Your task to perform on an android device: Search for a 100 ft extension cord Image 0: 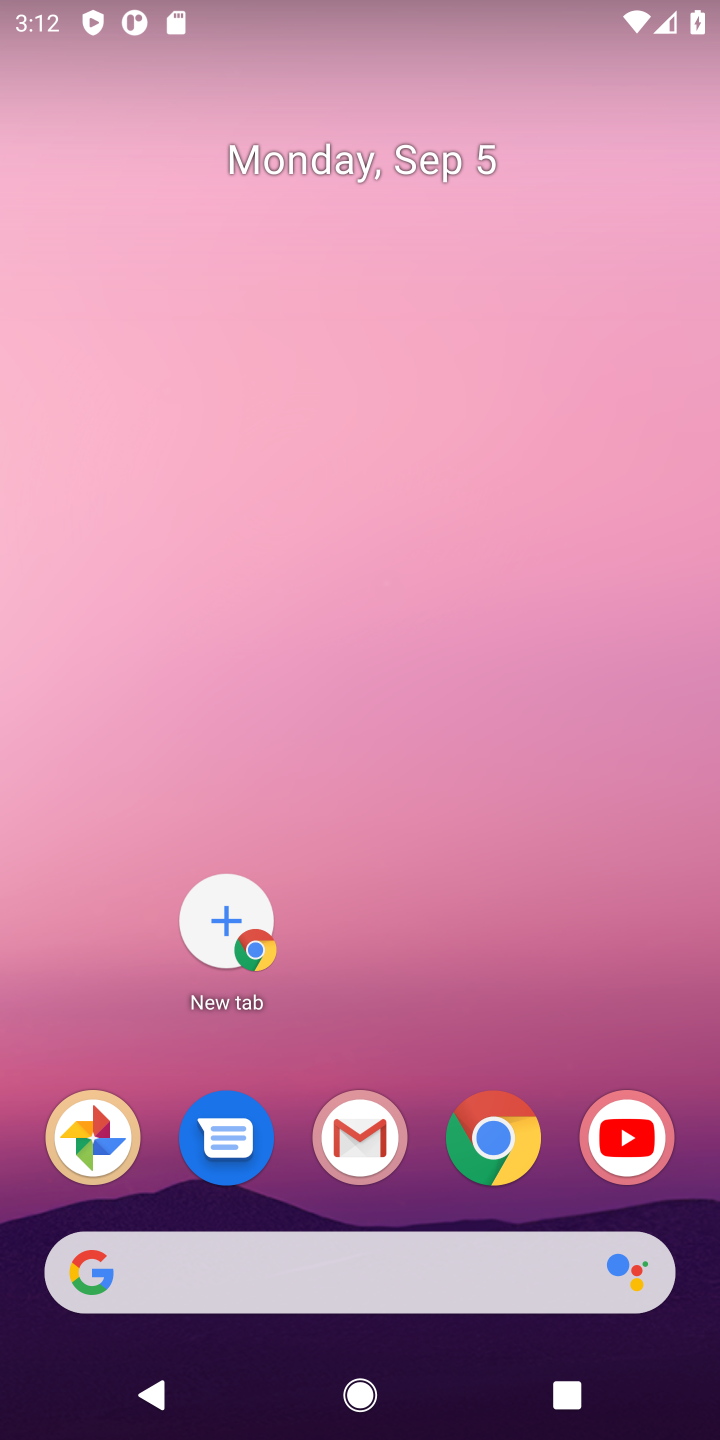
Step 0: click (470, 1124)
Your task to perform on an android device: Search for a 100 ft extension cord Image 1: 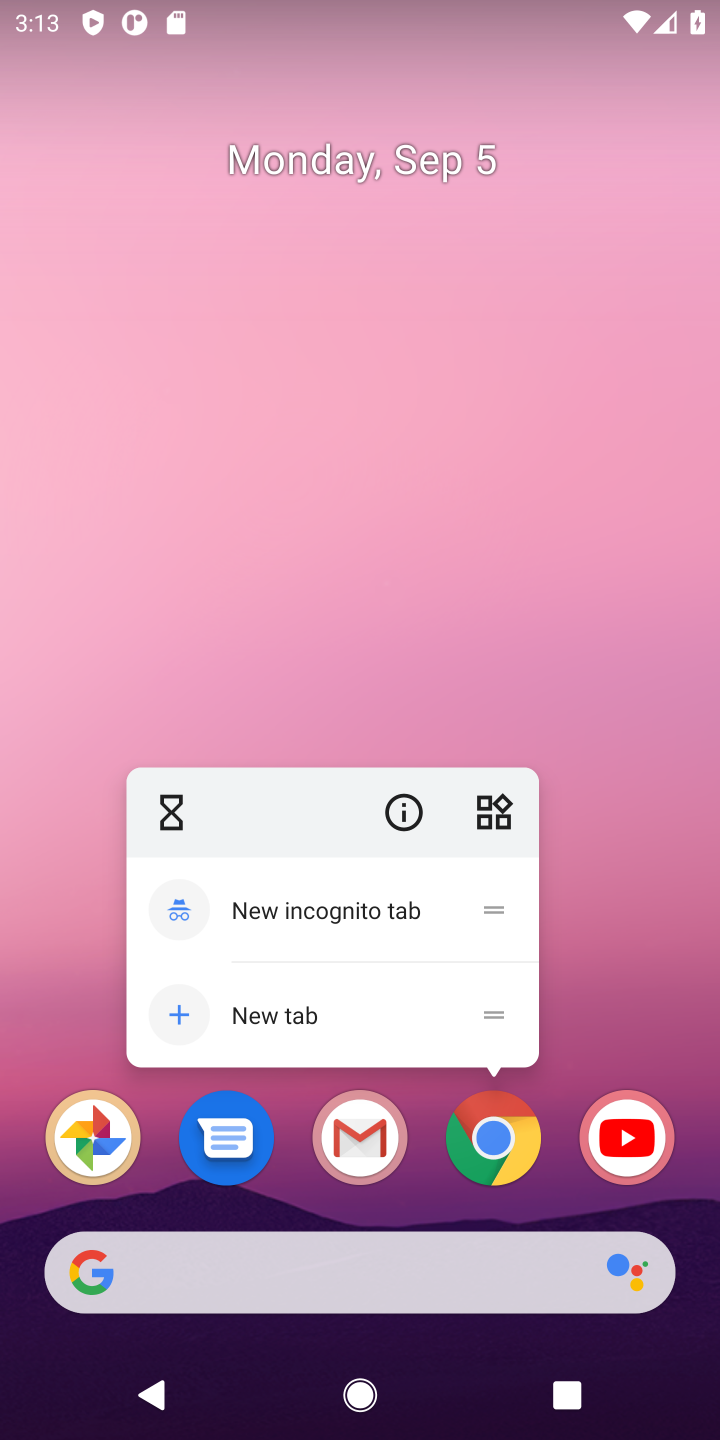
Step 1: click (502, 1156)
Your task to perform on an android device: Search for a 100 ft extension cord Image 2: 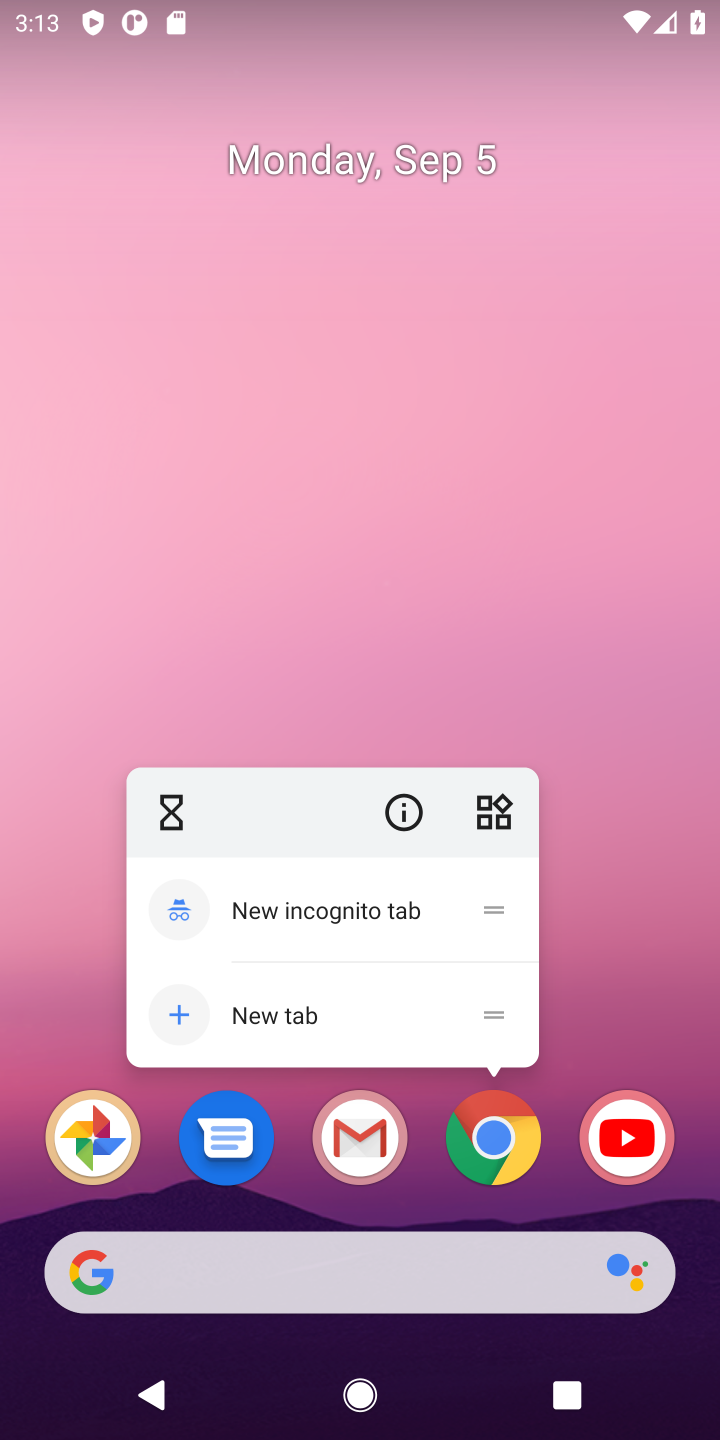
Step 2: click (500, 1150)
Your task to perform on an android device: Search for a 100 ft extension cord Image 3: 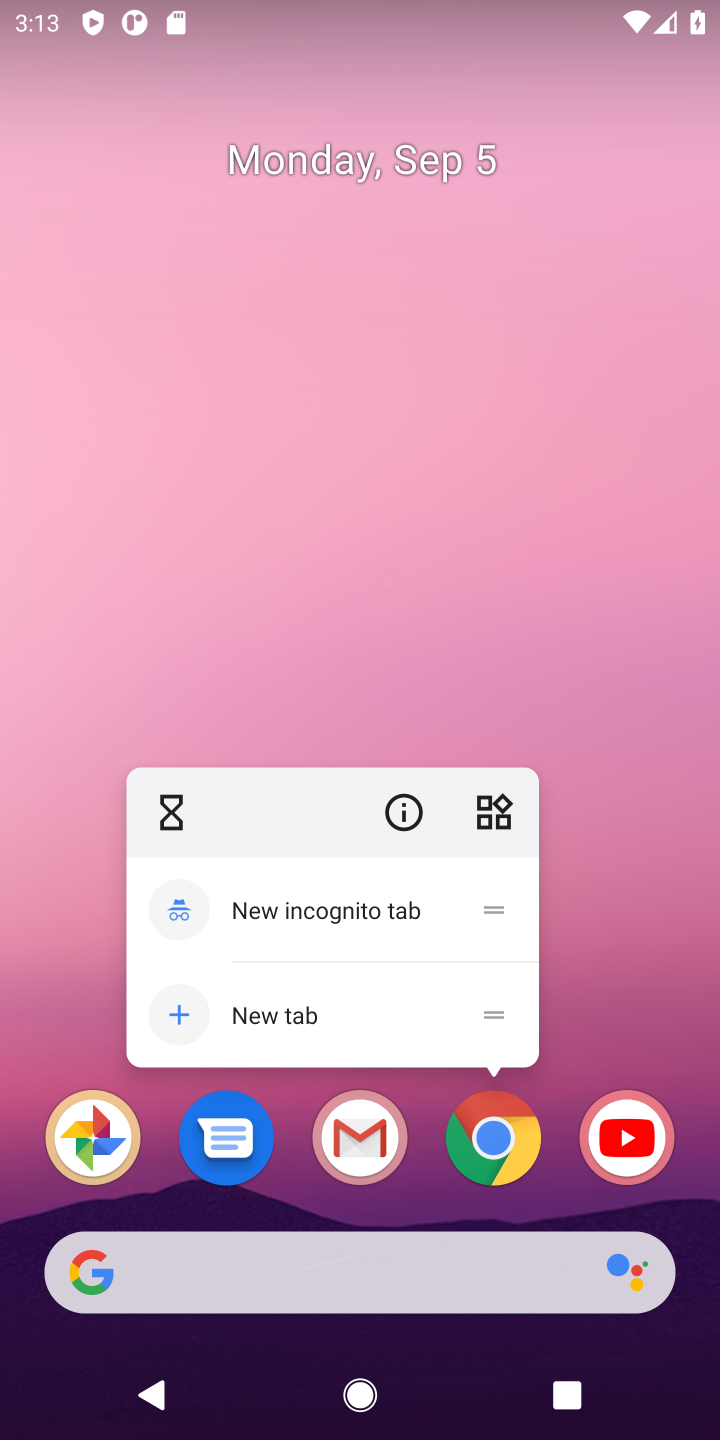
Step 3: click (500, 1146)
Your task to perform on an android device: Search for a 100 ft extension cord Image 4: 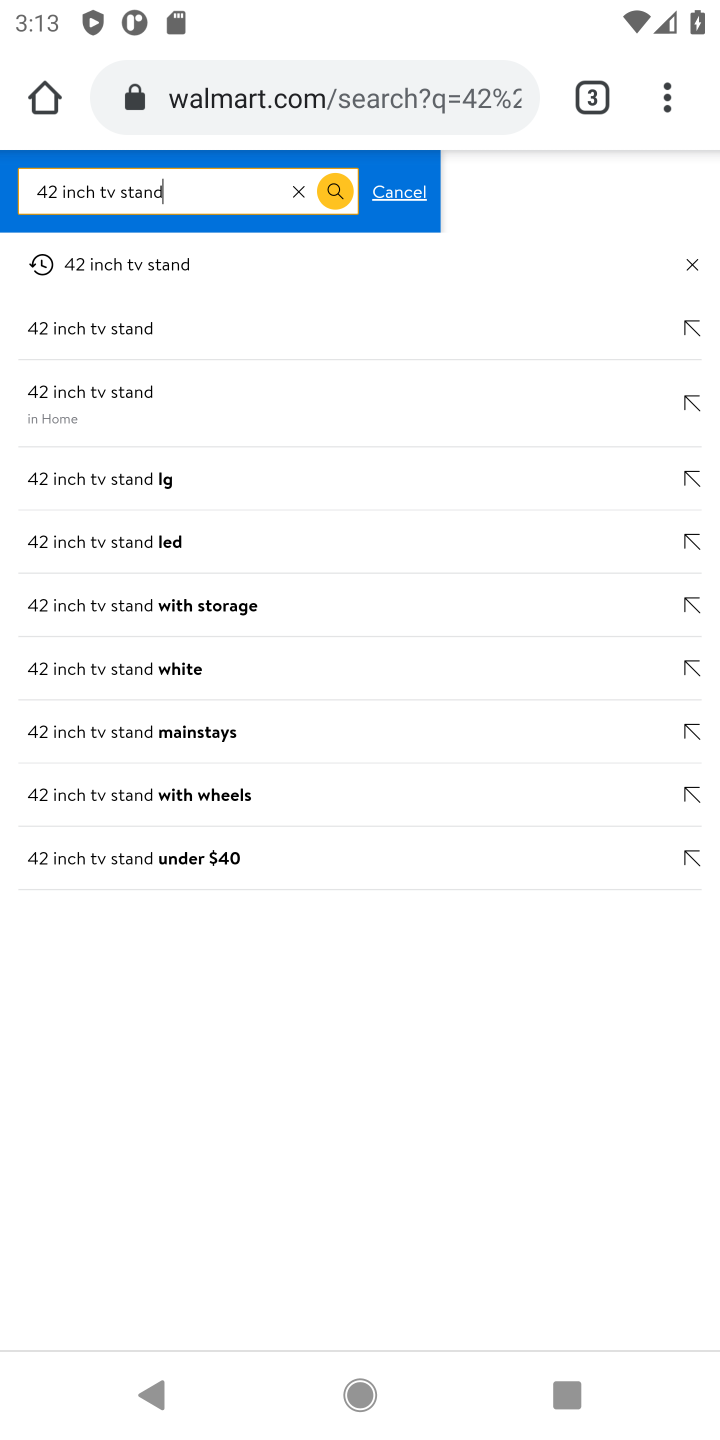
Step 4: click (420, 98)
Your task to perform on an android device: Search for a 100 ft extension cord Image 5: 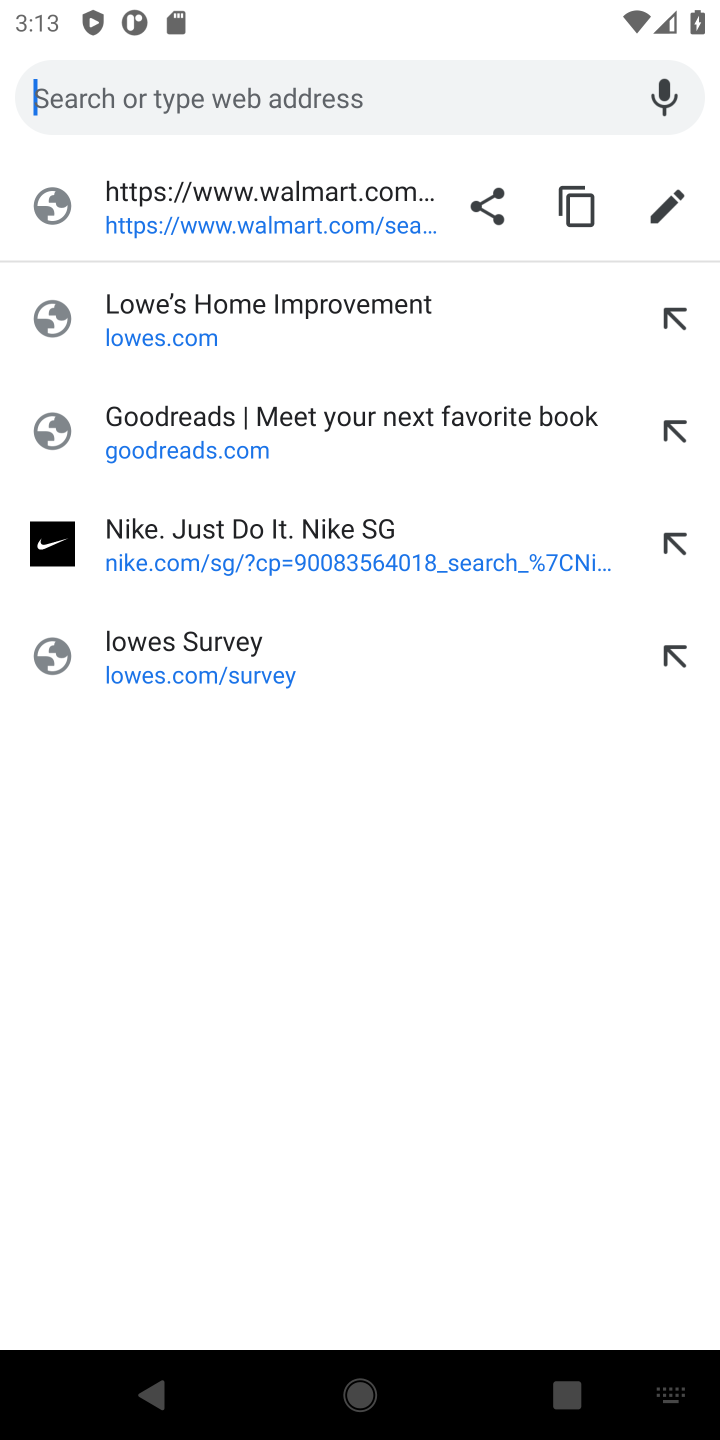
Step 5: type "100 ft extension cord"
Your task to perform on an android device: Search for a 100 ft extension cord Image 6: 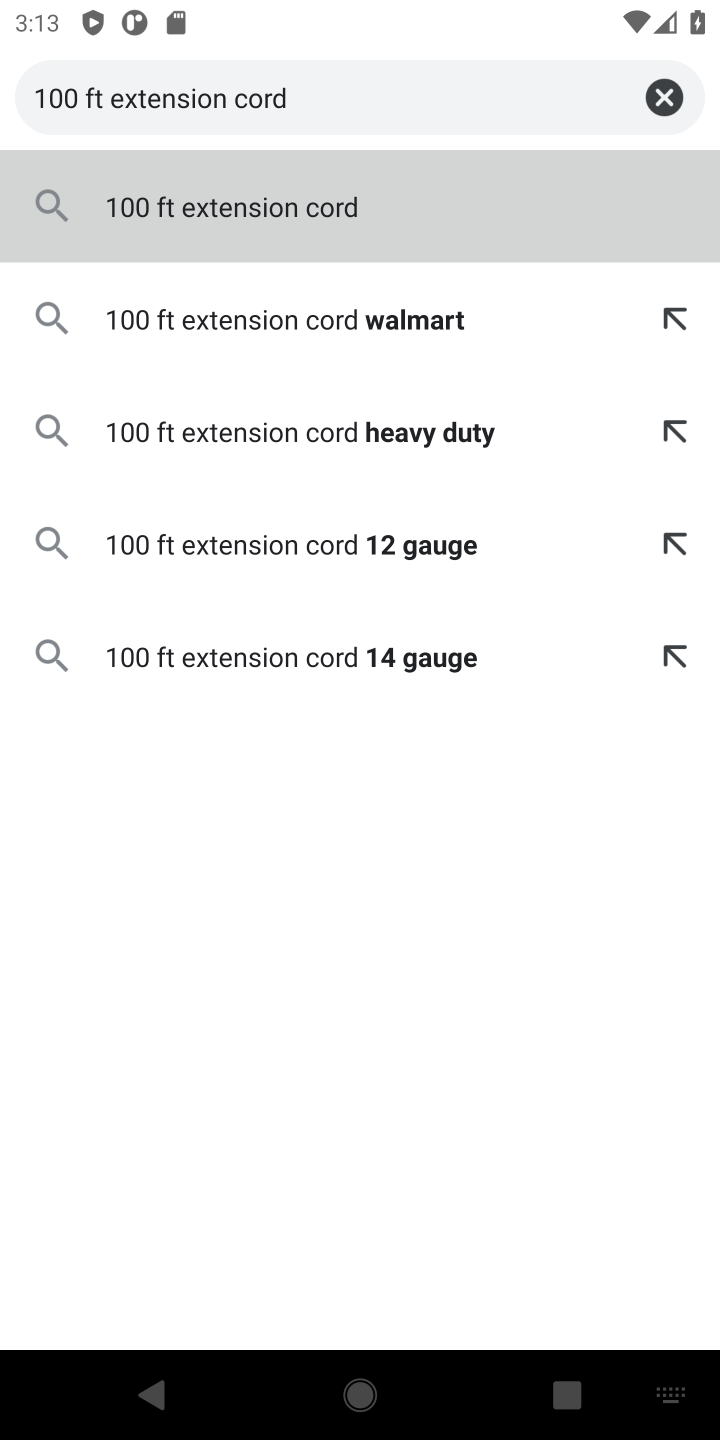
Step 6: type ""
Your task to perform on an android device: Search for a 100 ft extension cord Image 7: 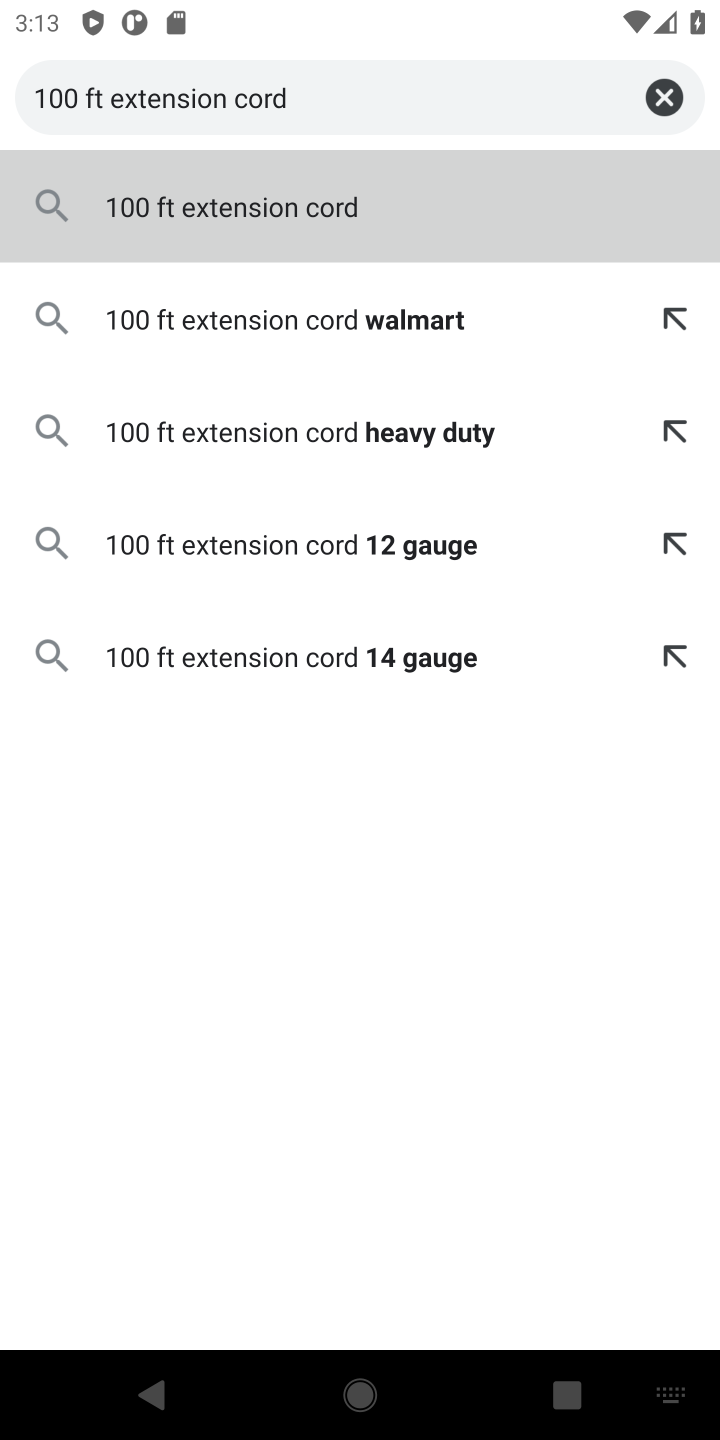
Step 7: click (264, 545)
Your task to perform on an android device: Search for a 100 ft extension cord Image 8: 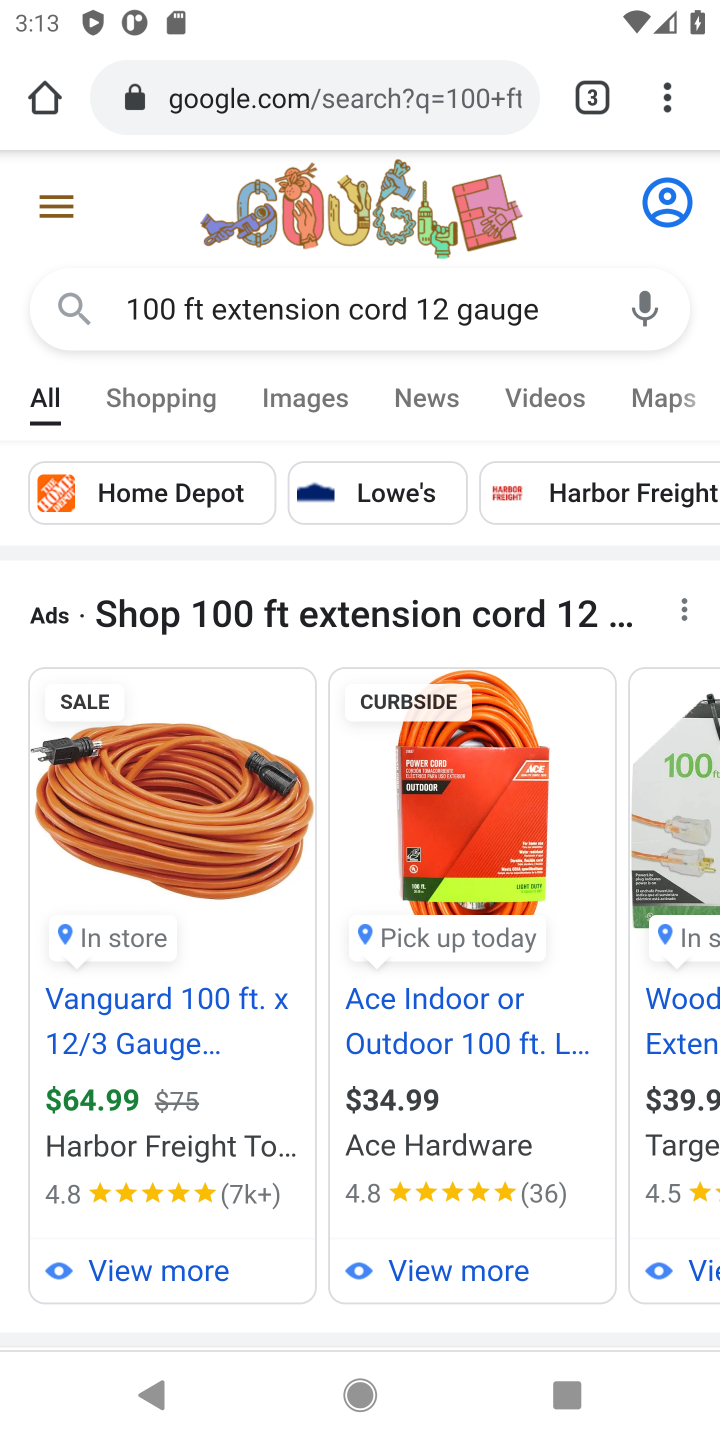
Step 8: drag from (447, 940) to (404, 457)
Your task to perform on an android device: Search for a 100 ft extension cord Image 9: 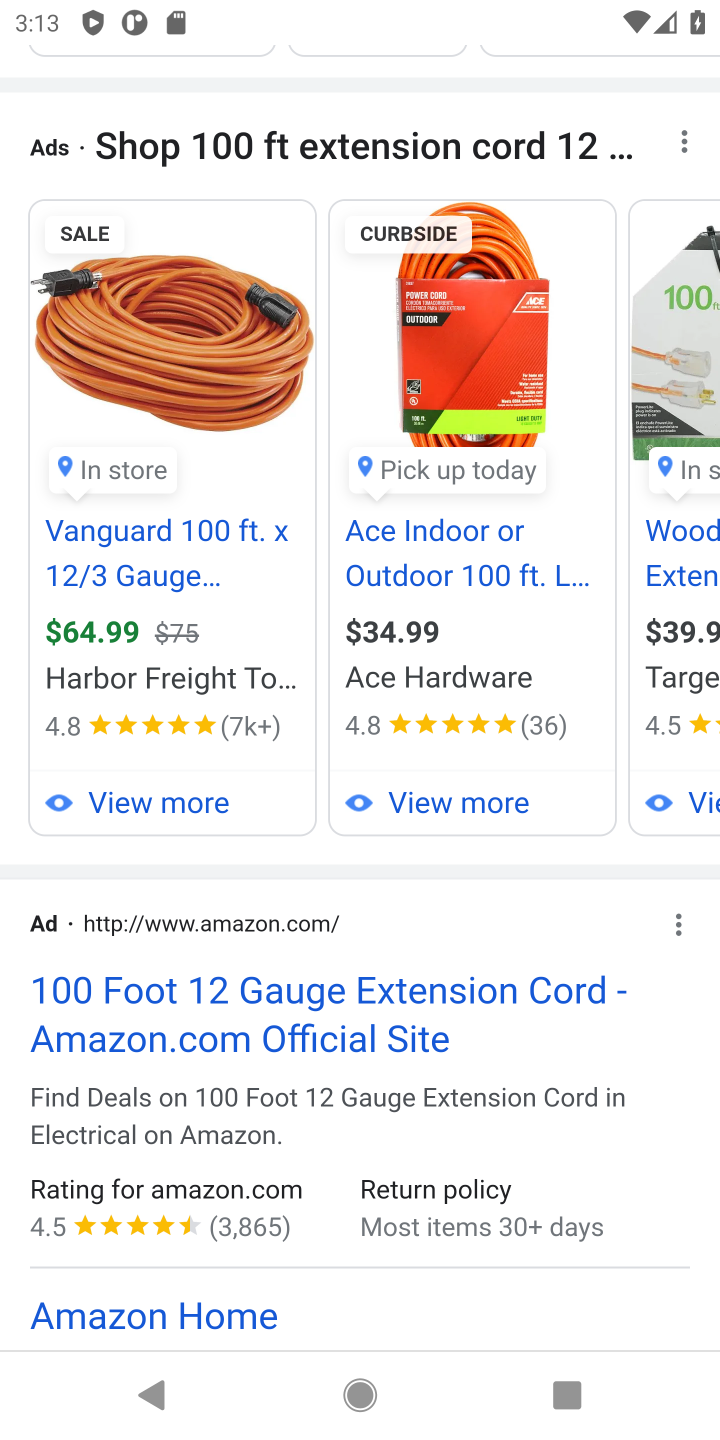
Step 9: click (140, 344)
Your task to perform on an android device: Search for a 100 ft extension cord Image 10: 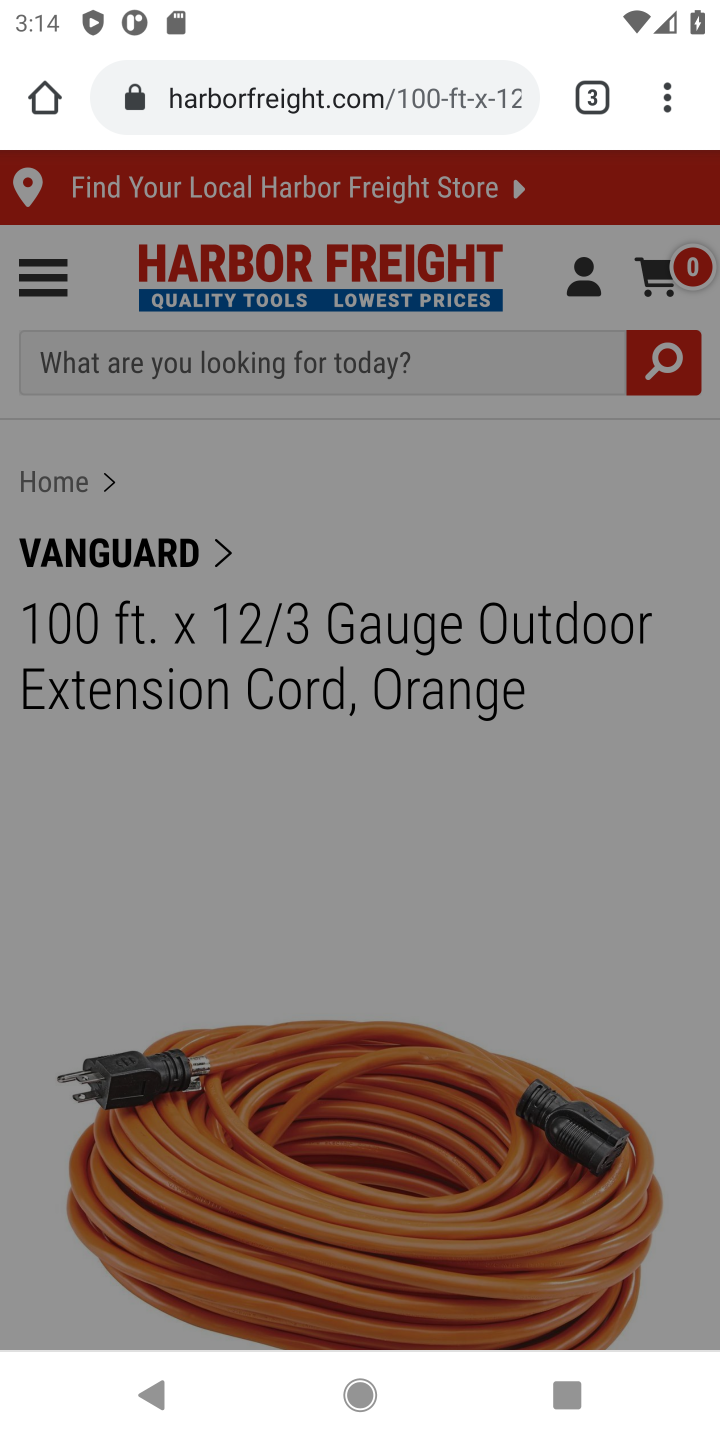
Step 10: drag from (459, 1056) to (412, 685)
Your task to perform on an android device: Search for a 100 ft extension cord Image 11: 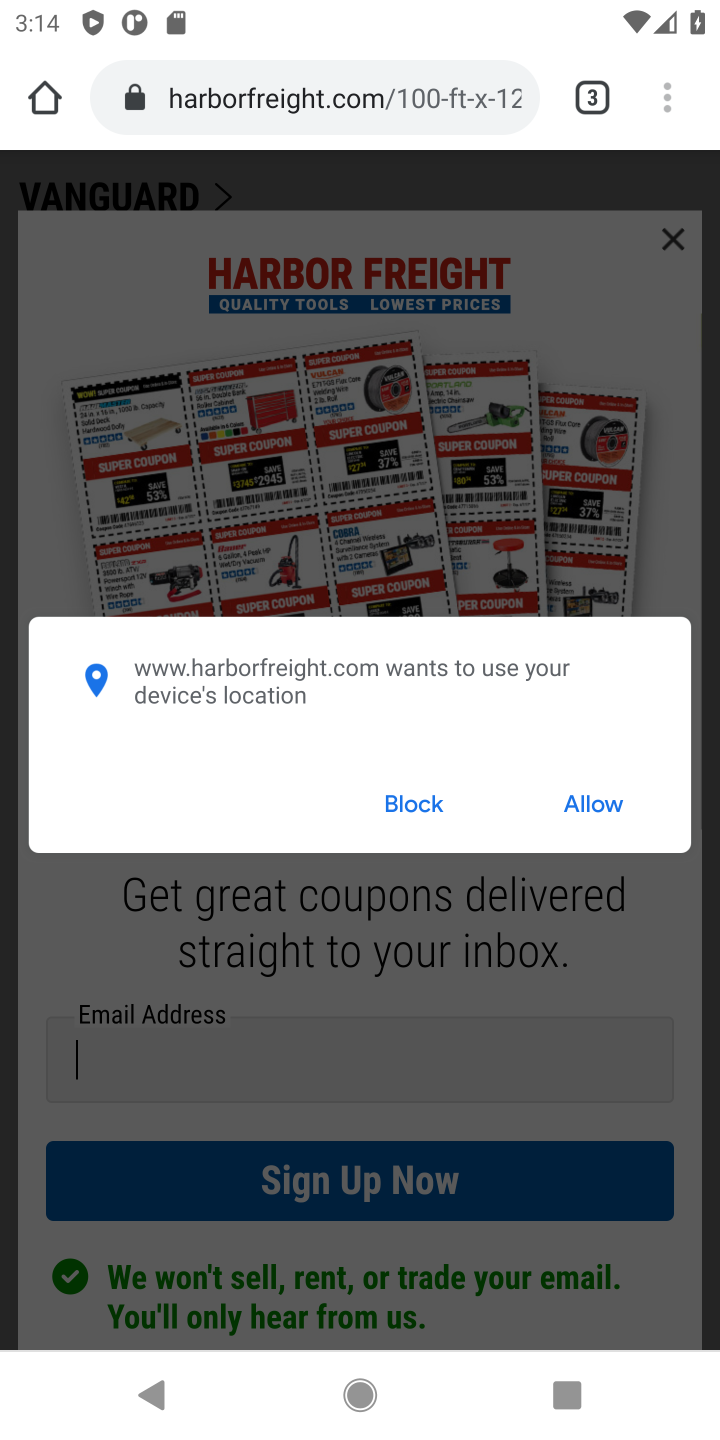
Step 11: click (596, 812)
Your task to perform on an android device: Search for a 100 ft extension cord Image 12: 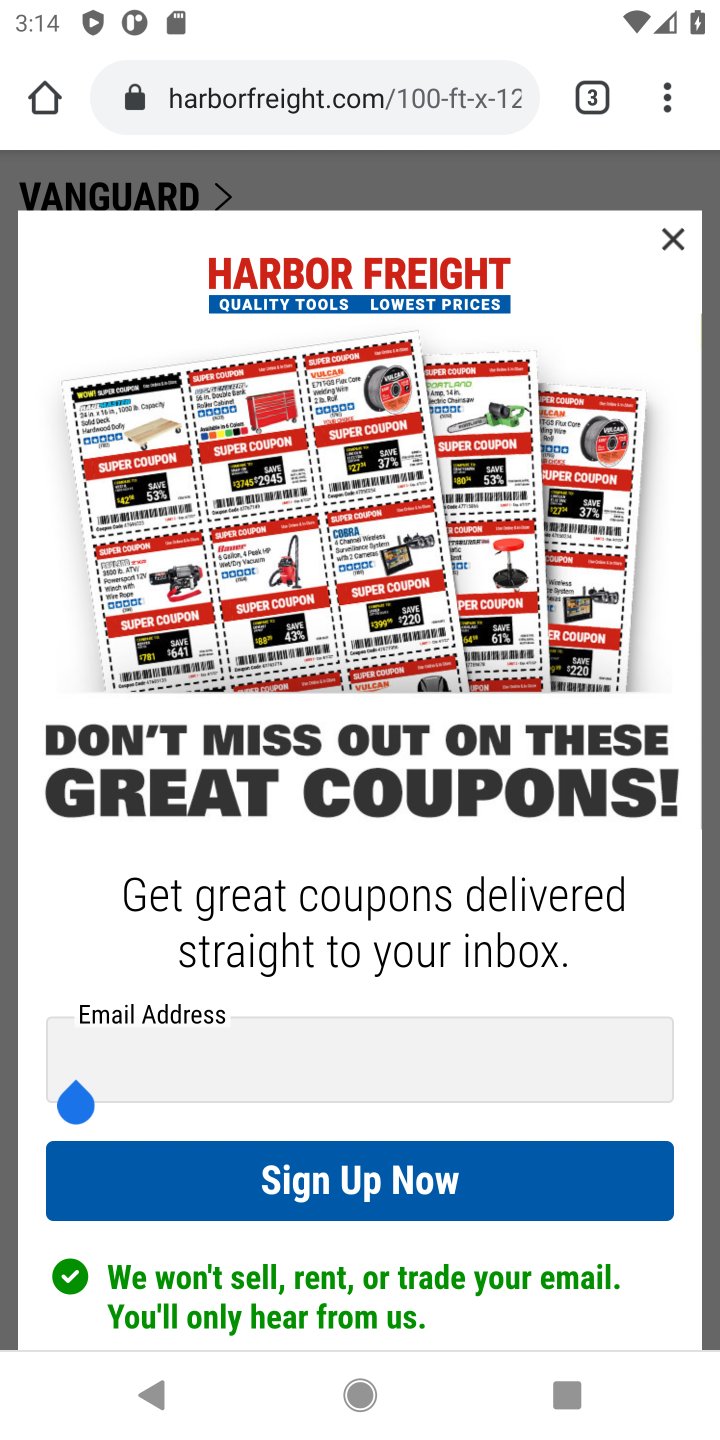
Step 12: click (595, 298)
Your task to perform on an android device: Search for a 100 ft extension cord Image 13: 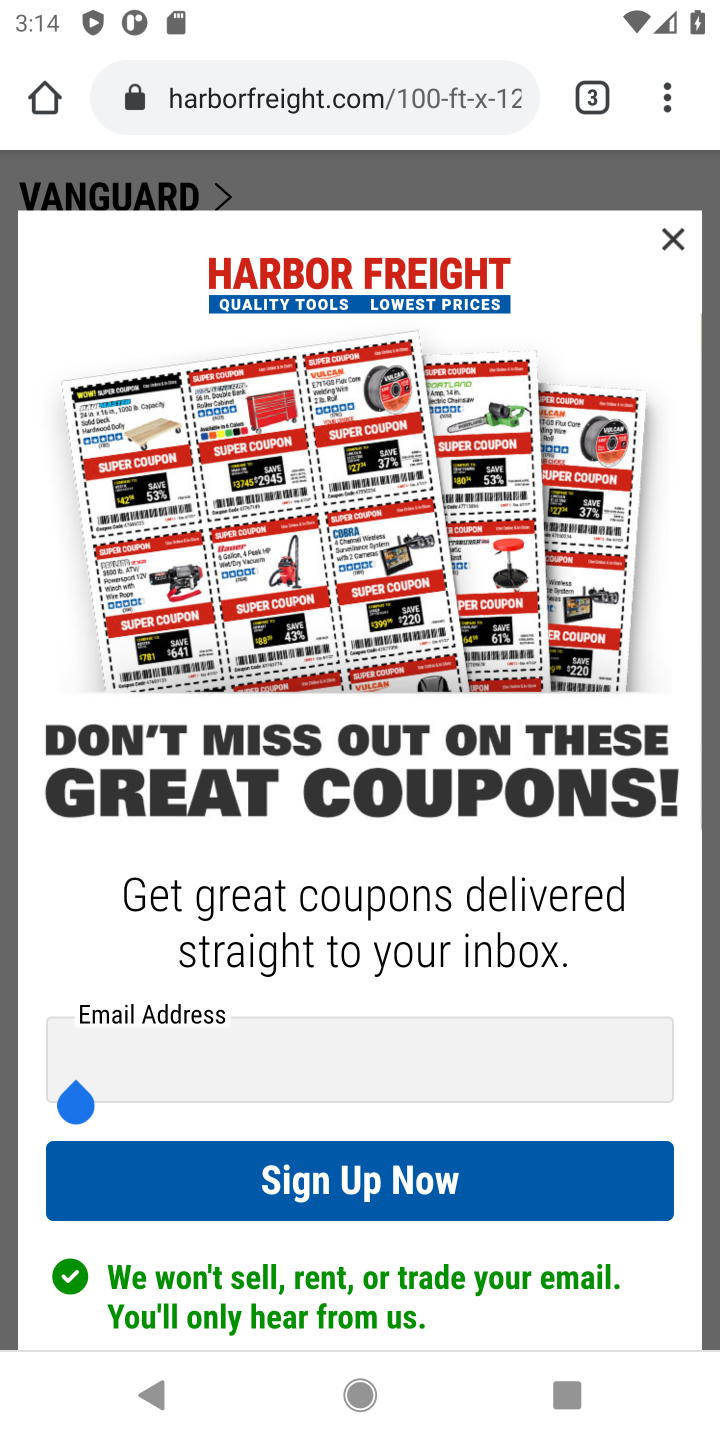
Step 13: click (666, 229)
Your task to perform on an android device: Search for a 100 ft extension cord Image 14: 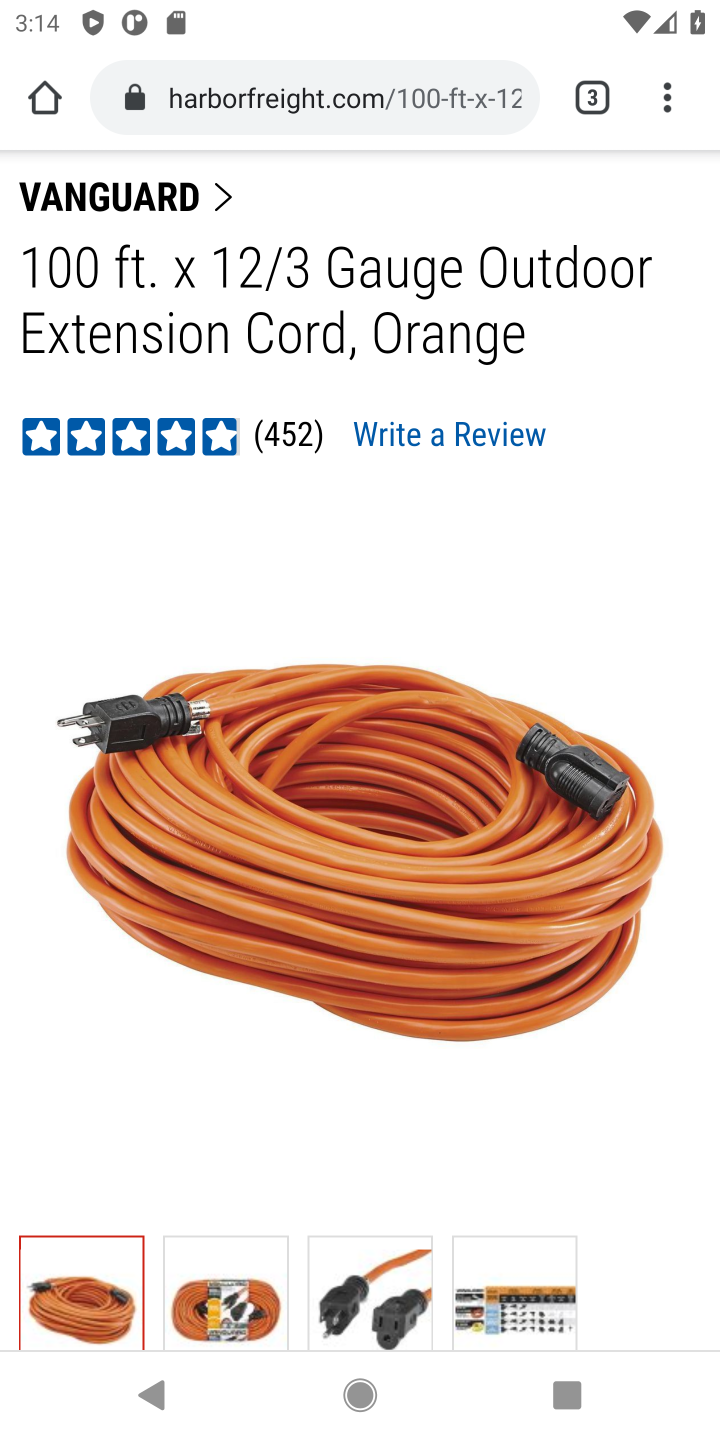
Step 14: click (466, 380)
Your task to perform on an android device: Search for a 100 ft extension cord Image 15: 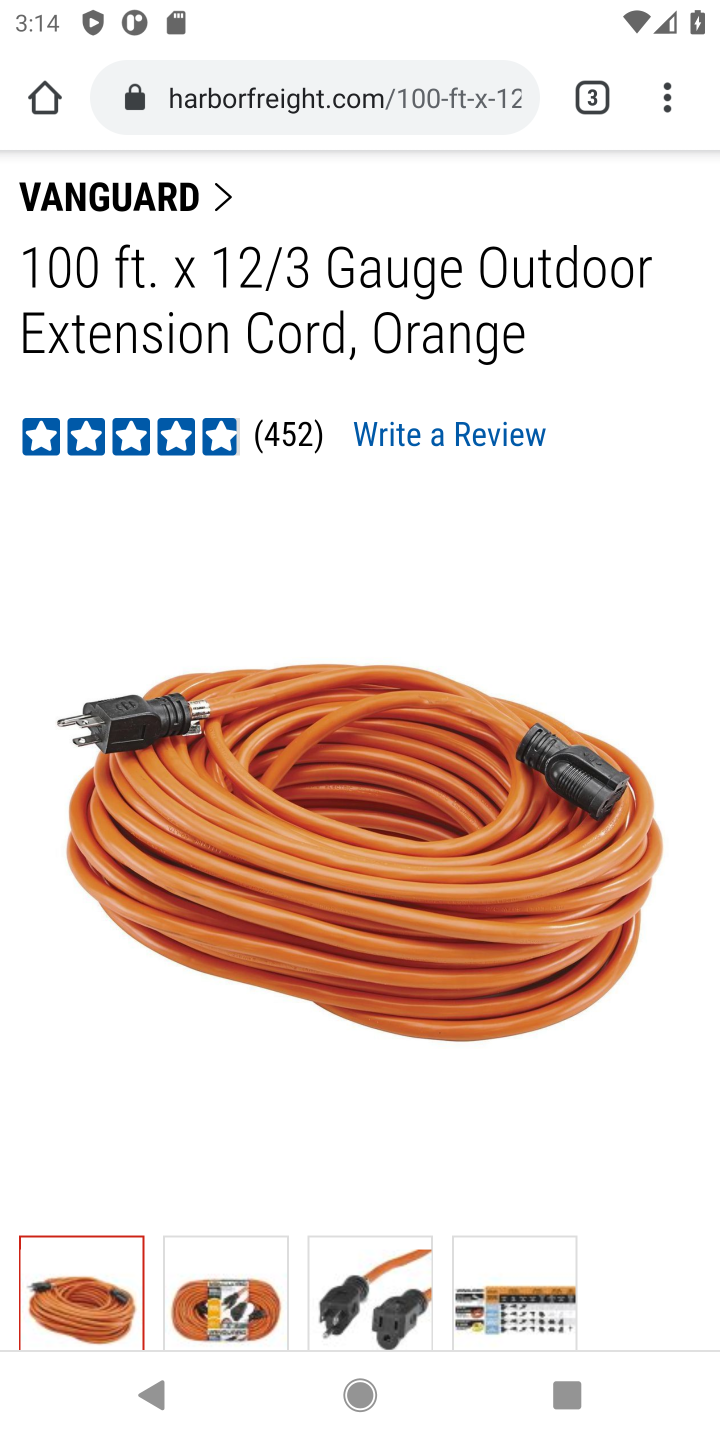
Step 15: drag from (174, 949) to (229, 622)
Your task to perform on an android device: Search for a 100 ft extension cord Image 16: 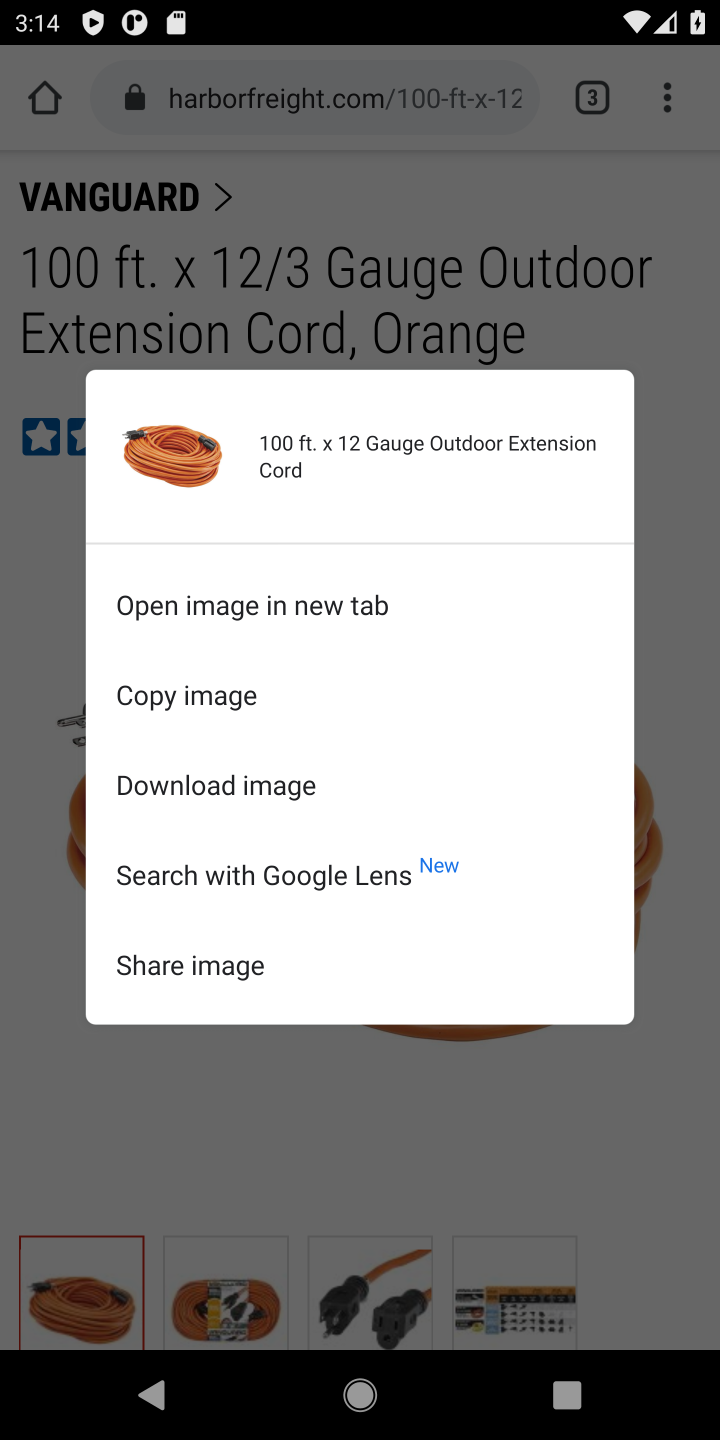
Step 16: click (688, 601)
Your task to perform on an android device: Search for a 100 ft extension cord Image 17: 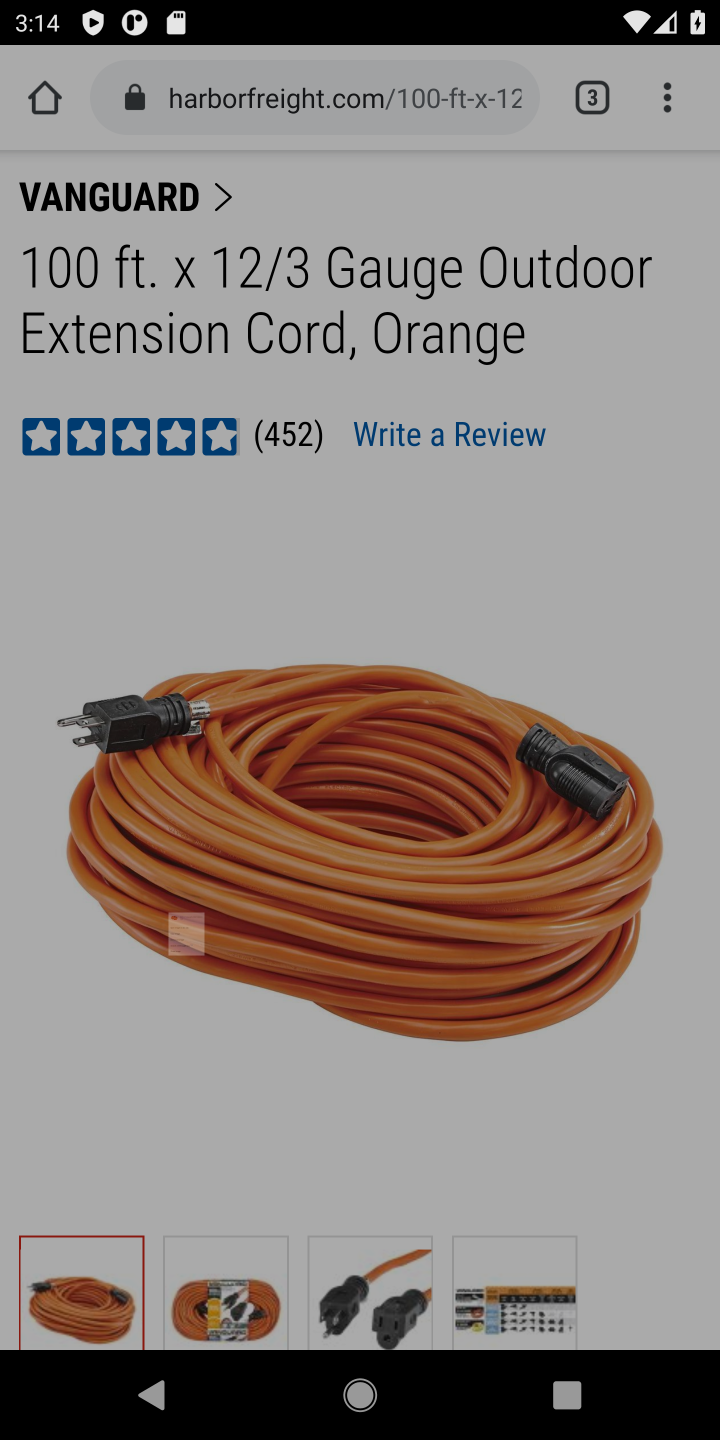
Step 17: task complete